Your task to perform on an android device: Check the weather Image 0: 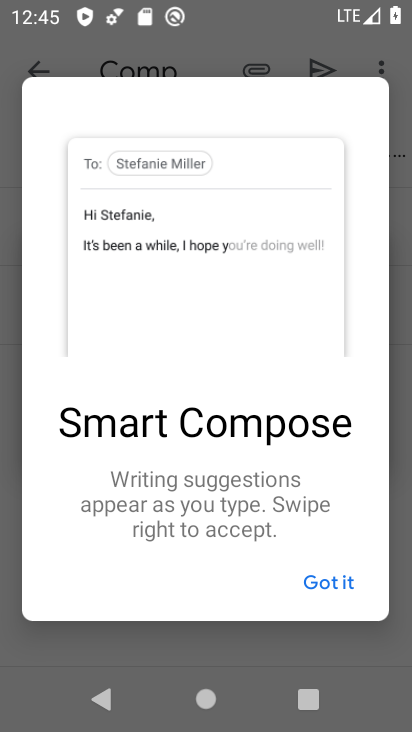
Step 0: press home button
Your task to perform on an android device: Check the weather Image 1: 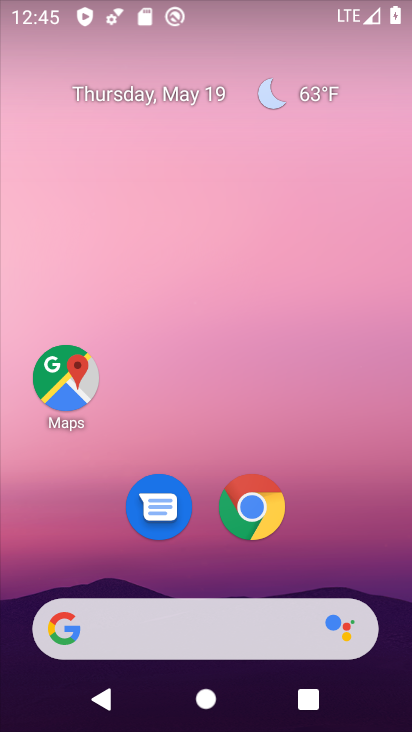
Step 1: drag from (177, 536) to (258, 144)
Your task to perform on an android device: Check the weather Image 2: 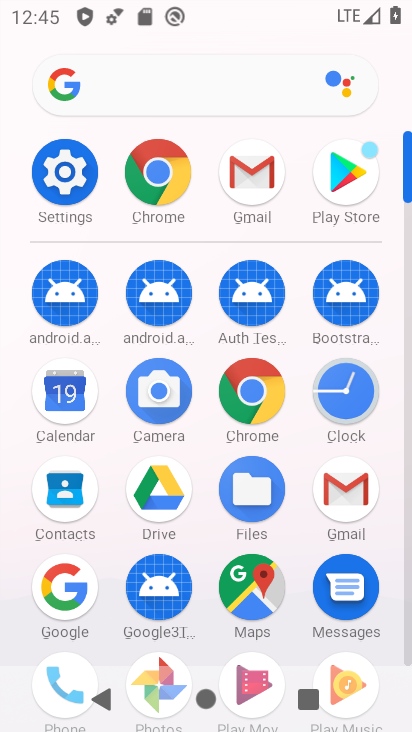
Step 2: click (77, 594)
Your task to perform on an android device: Check the weather Image 3: 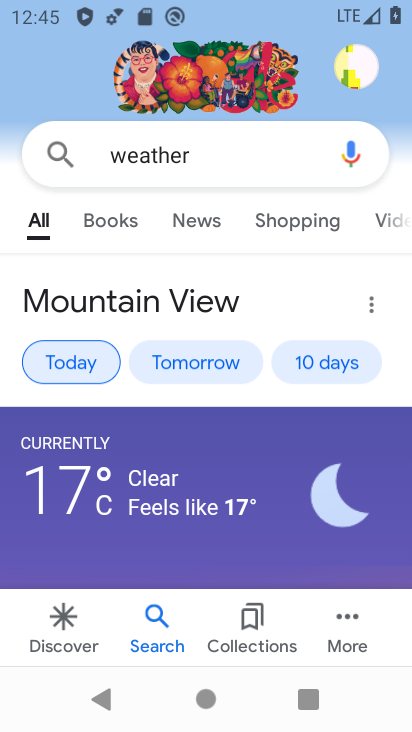
Step 3: task complete